Your task to perform on an android device: change the upload size in google photos Image 0: 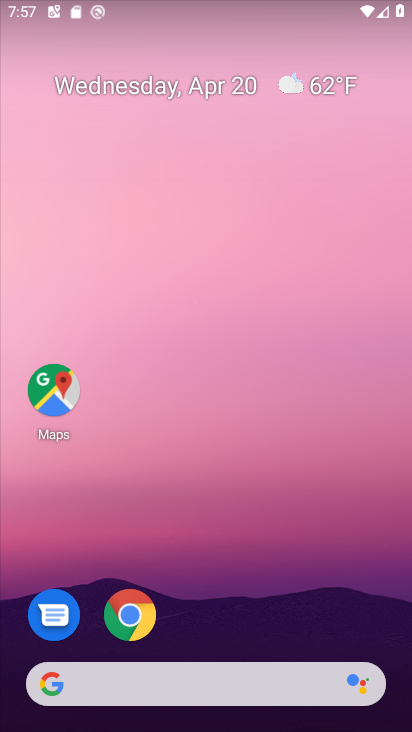
Step 0: drag from (196, 575) to (277, 6)
Your task to perform on an android device: change the upload size in google photos Image 1: 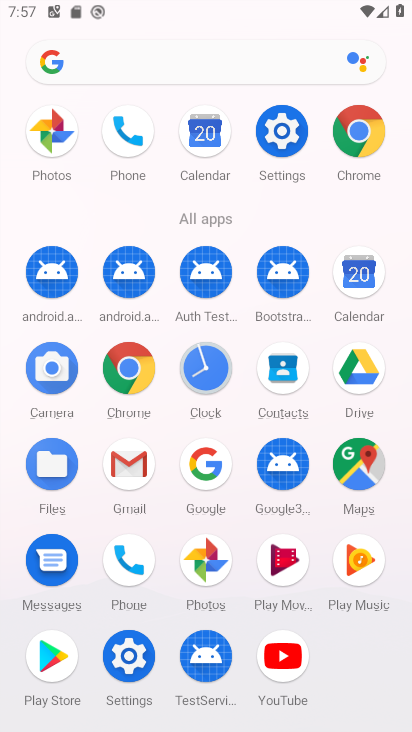
Step 1: click (211, 567)
Your task to perform on an android device: change the upload size in google photos Image 2: 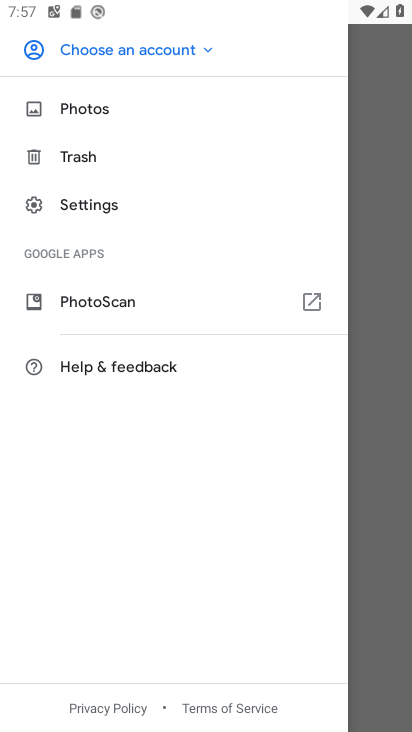
Step 2: click (76, 202)
Your task to perform on an android device: change the upload size in google photos Image 3: 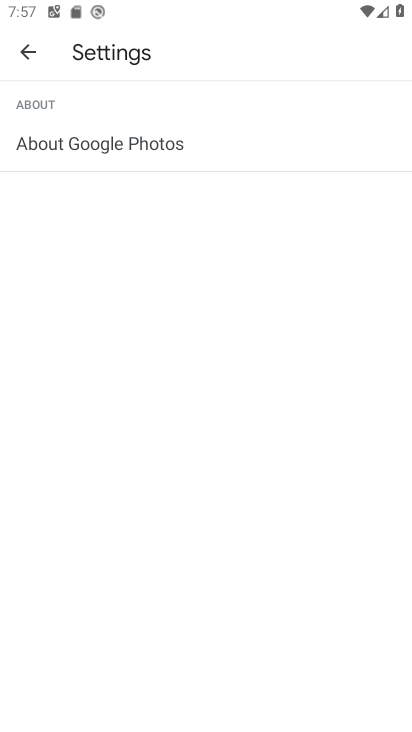
Step 3: click (106, 153)
Your task to perform on an android device: change the upload size in google photos Image 4: 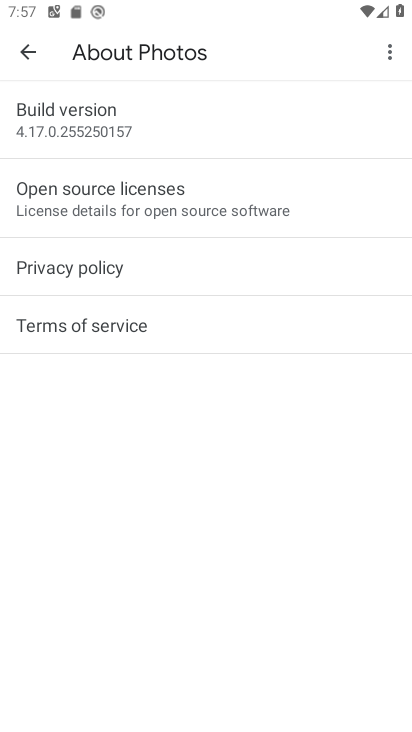
Step 4: click (29, 47)
Your task to perform on an android device: change the upload size in google photos Image 5: 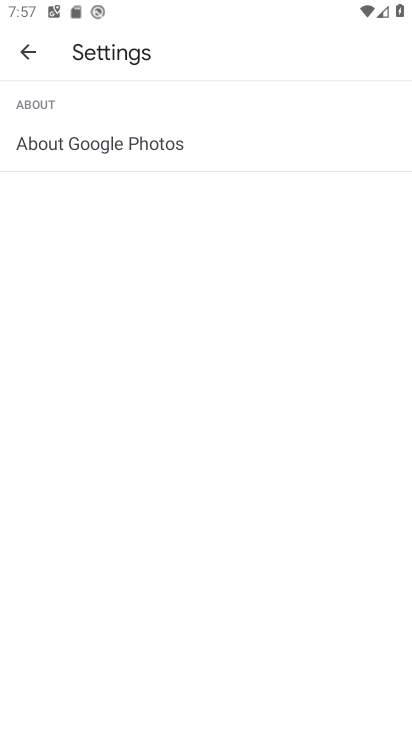
Step 5: click (25, 47)
Your task to perform on an android device: change the upload size in google photos Image 6: 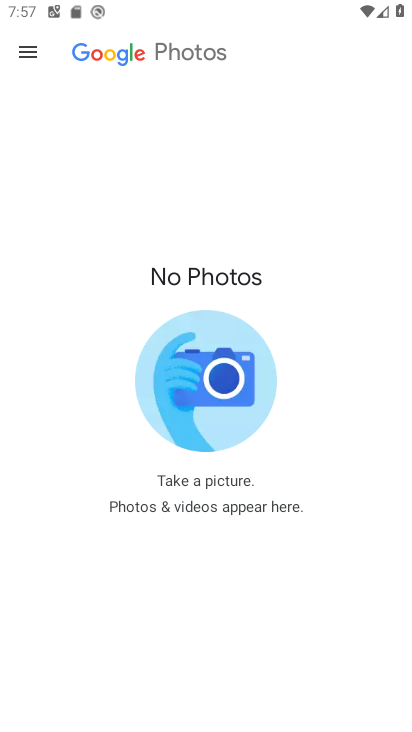
Step 6: drag from (168, 209) to (150, 538)
Your task to perform on an android device: change the upload size in google photos Image 7: 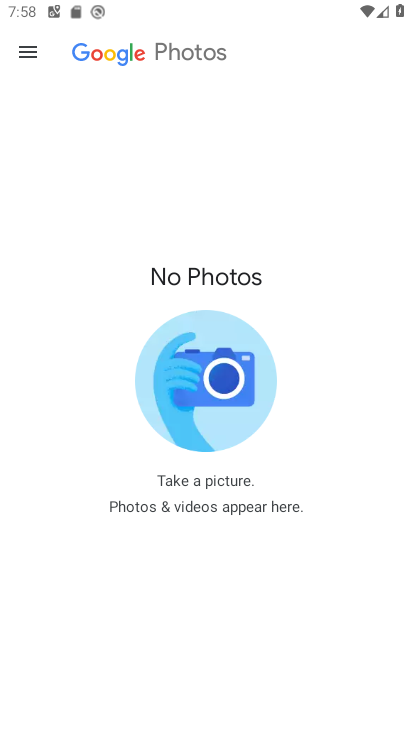
Step 7: click (32, 42)
Your task to perform on an android device: change the upload size in google photos Image 8: 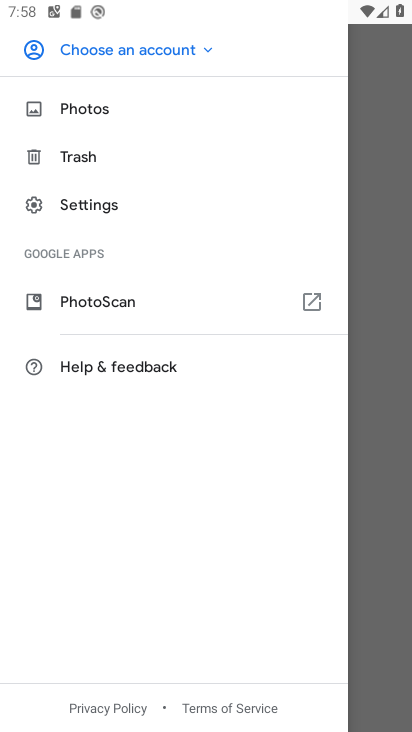
Step 8: click (119, 218)
Your task to perform on an android device: change the upload size in google photos Image 9: 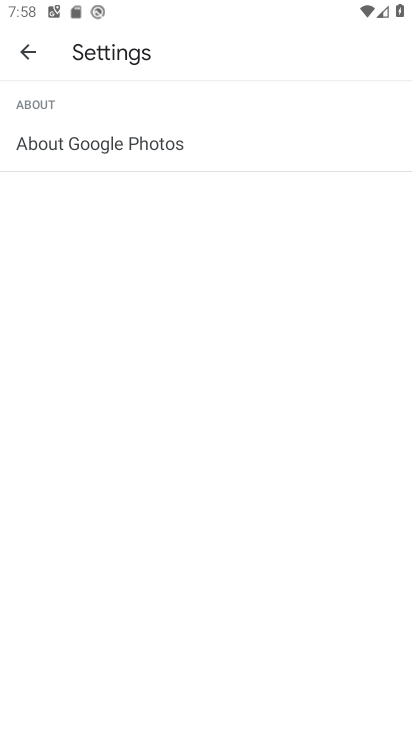
Step 9: task complete